Your task to perform on an android device: Check the weather Image 0: 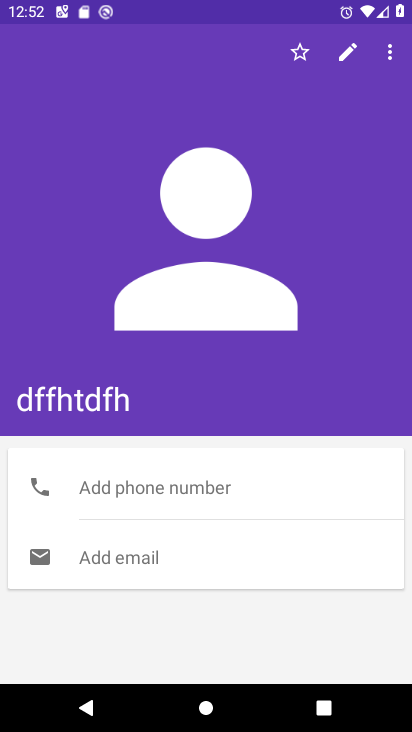
Step 0: press home button
Your task to perform on an android device: Check the weather Image 1: 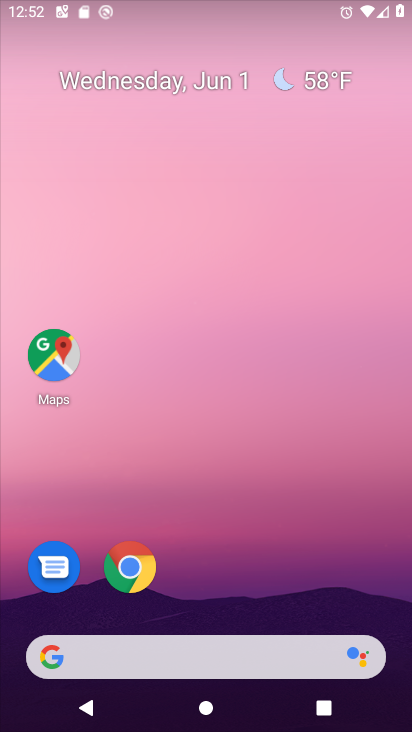
Step 1: drag from (199, 596) to (170, 61)
Your task to perform on an android device: Check the weather Image 2: 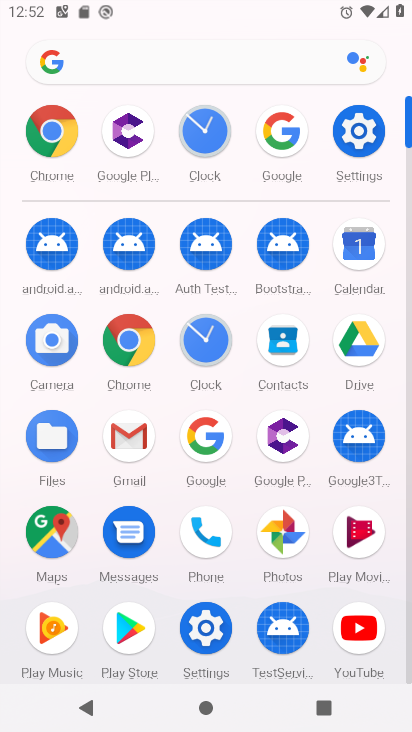
Step 2: click (277, 136)
Your task to perform on an android device: Check the weather Image 3: 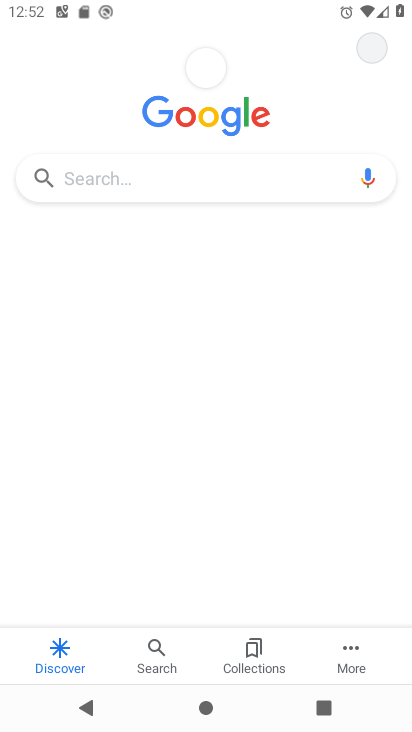
Step 3: click (148, 170)
Your task to perform on an android device: Check the weather Image 4: 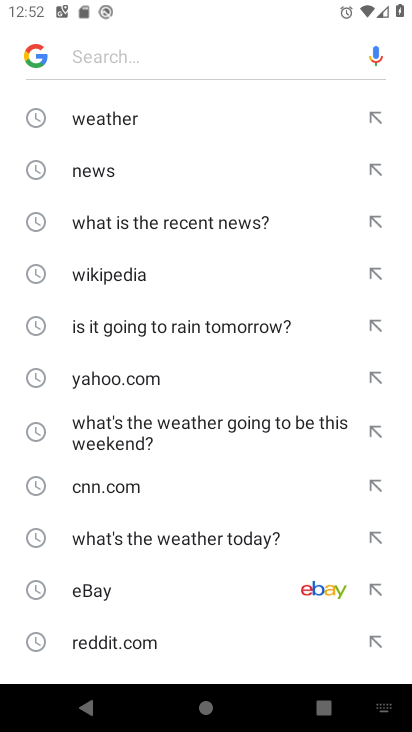
Step 4: click (112, 113)
Your task to perform on an android device: Check the weather Image 5: 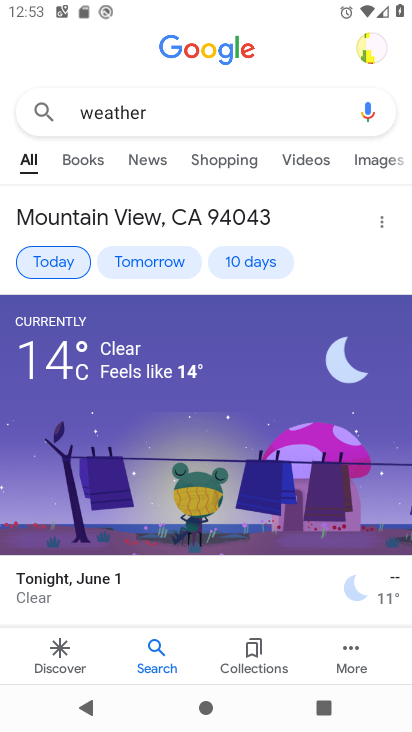
Step 5: task complete